Your task to perform on an android device: Open notification settings Image 0: 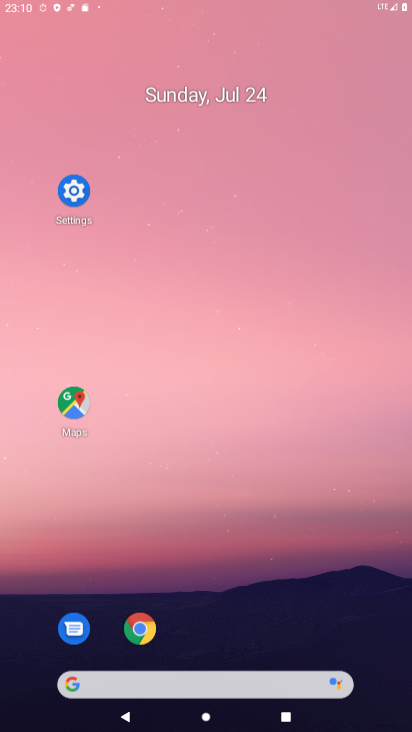
Step 0: drag from (214, 541) to (197, 308)
Your task to perform on an android device: Open notification settings Image 1: 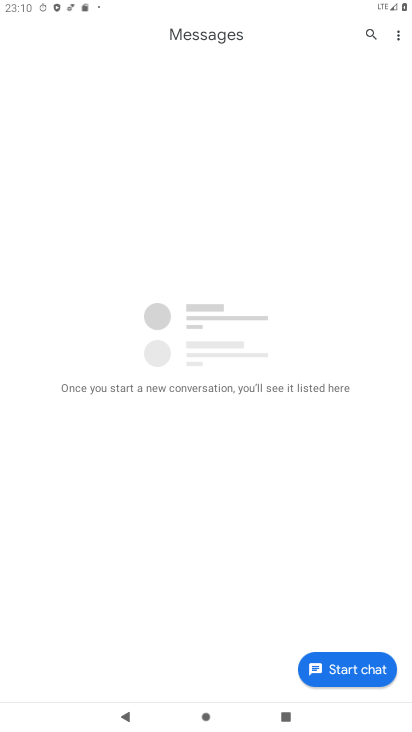
Step 1: press back button
Your task to perform on an android device: Open notification settings Image 2: 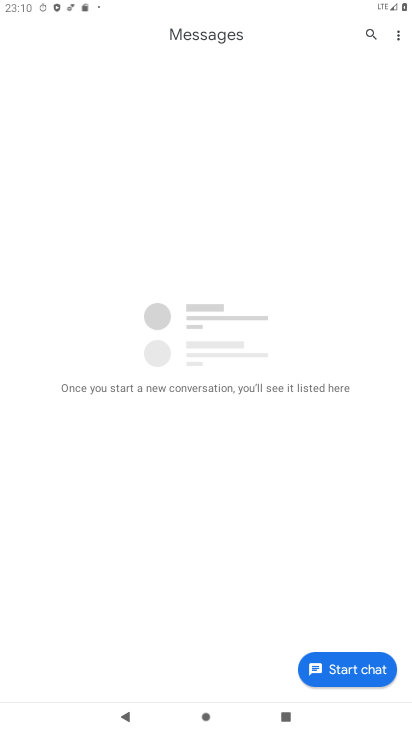
Step 2: press back button
Your task to perform on an android device: Open notification settings Image 3: 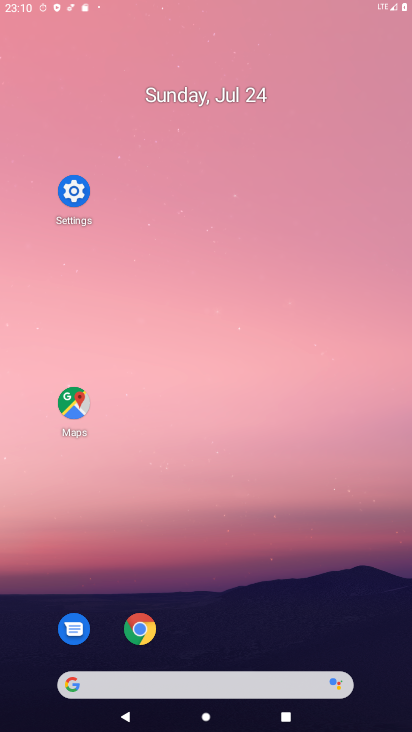
Step 3: press back button
Your task to perform on an android device: Open notification settings Image 4: 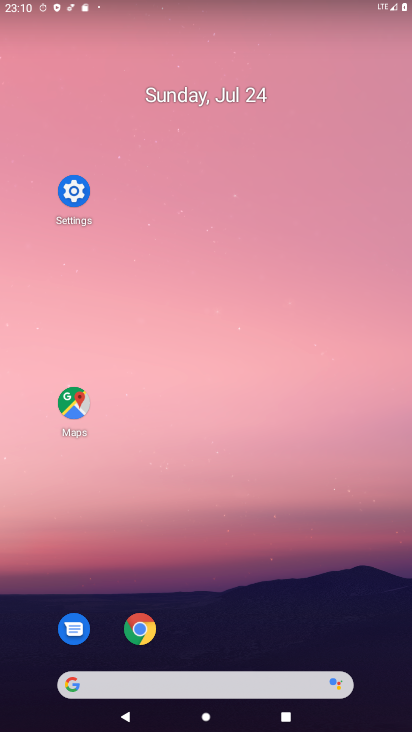
Step 4: drag from (241, 690) to (214, 116)
Your task to perform on an android device: Open notification settings Image 5: 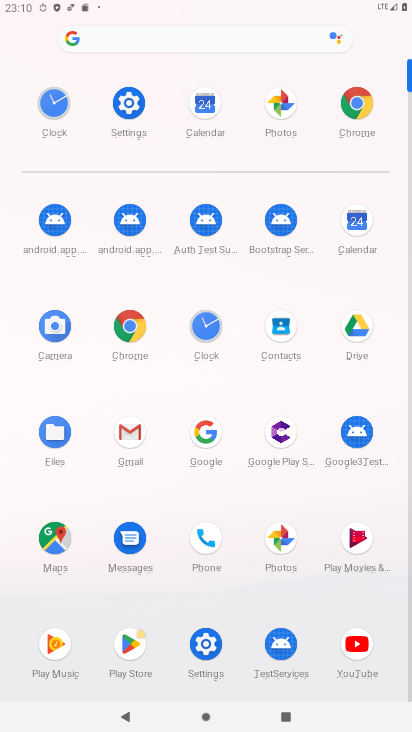
Step 5: click (120, 341)
Your task to perform on an android device: Open notification settings Image 6: 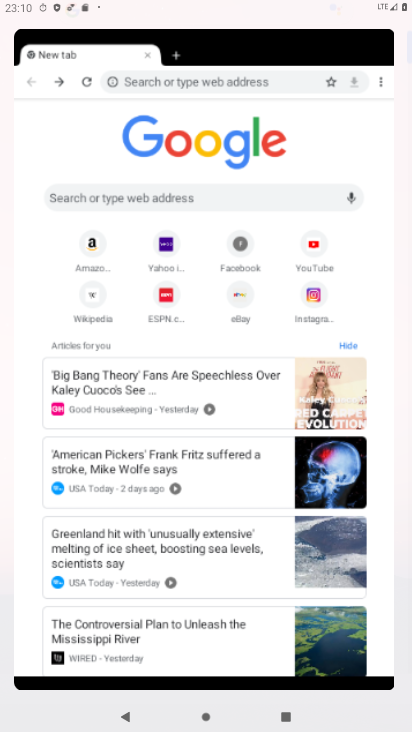
Step 6: click (122, 348)
Your task to perform on an android device: Open notification settings Image 7: 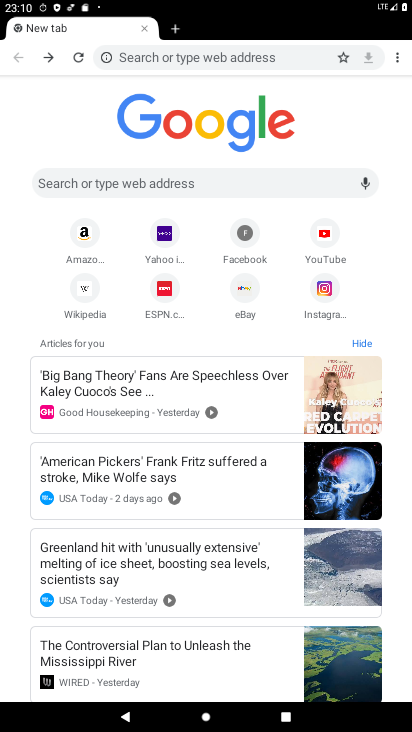
Step 7: drag from (395, 59) to (89, 107)
Your task to perform on an android device: Open notification settings Image 8: 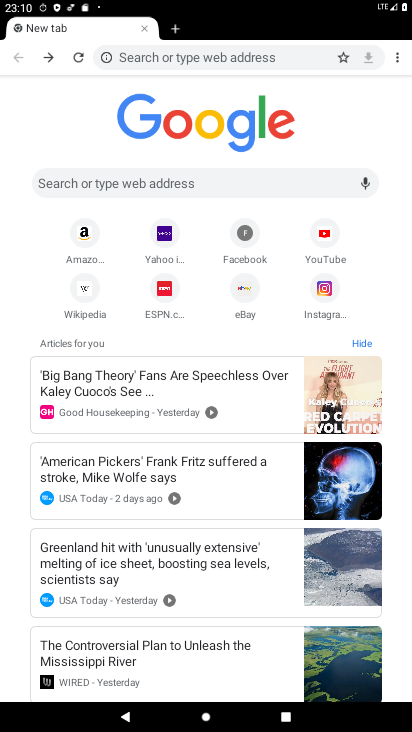
Step 8: click (143, 29)
Your task to perform on an android device: Open notification settings Image 9: 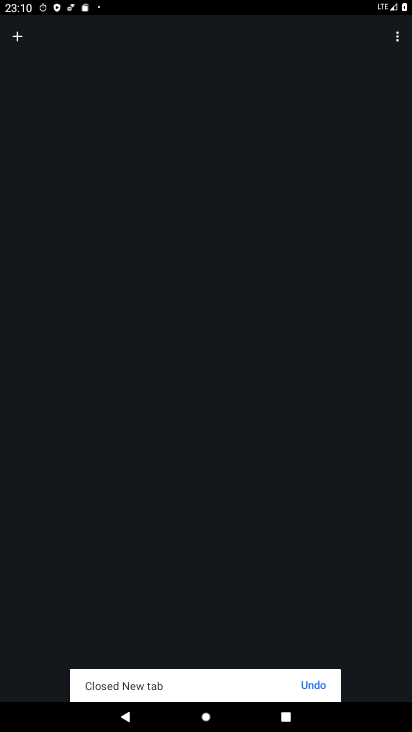
Step 9: click (15, 36)
Your task to perform on an android device: Open notification settings Image 10: 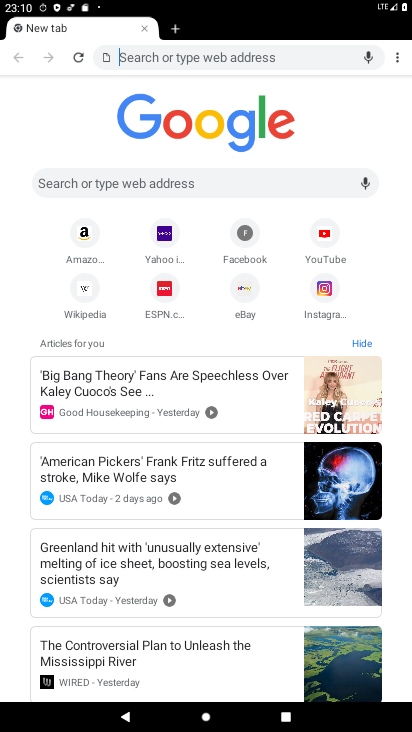
Step 10: press home button
Your task to perform on an android device: Open notification settings Image 11: 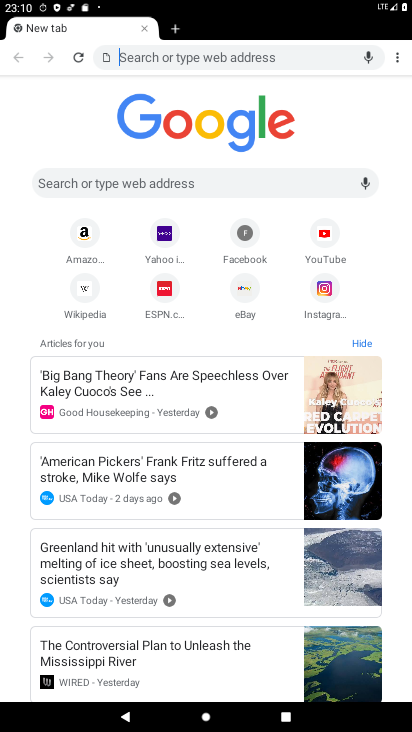
Step 11: press home button
Your task to perform on an android device: Open notification settings Image 12: 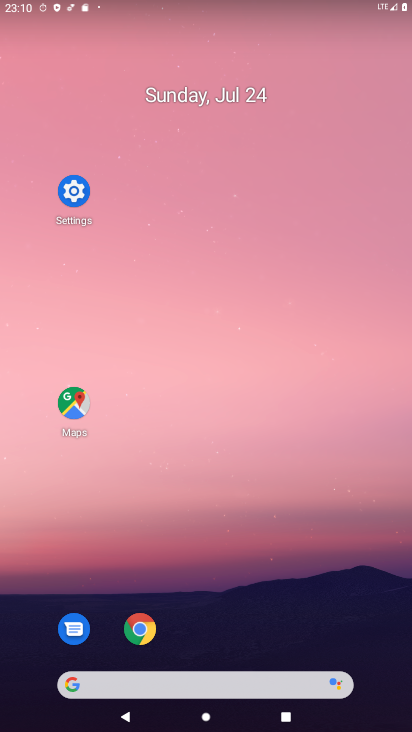
Step 12: drag from (257, 573) to (212, 54)
Your task to perform on an android device: Open notification settings Image 13: 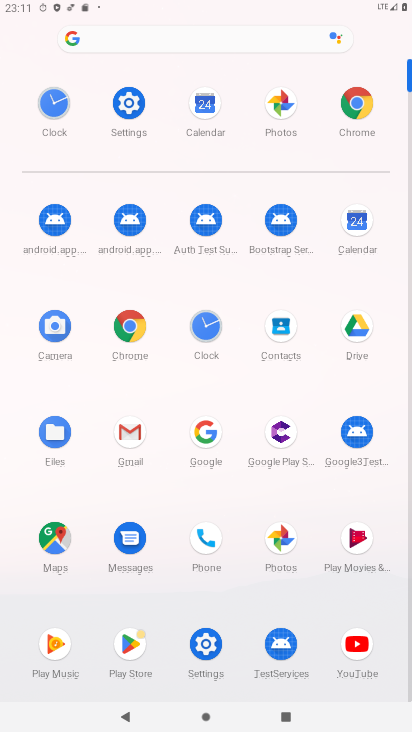
Step 13: click (215, 638)
Your task to perform on an android device: Open notification settings Image 14: 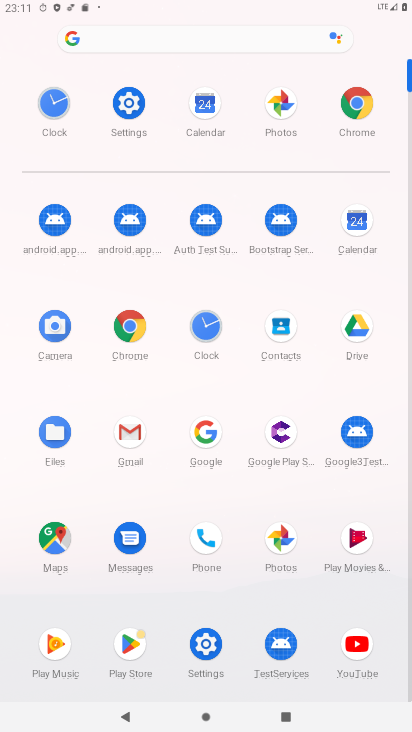
Step 14: click (215, 639)
Your task to perform on an android device: Open notification settings Image 15: 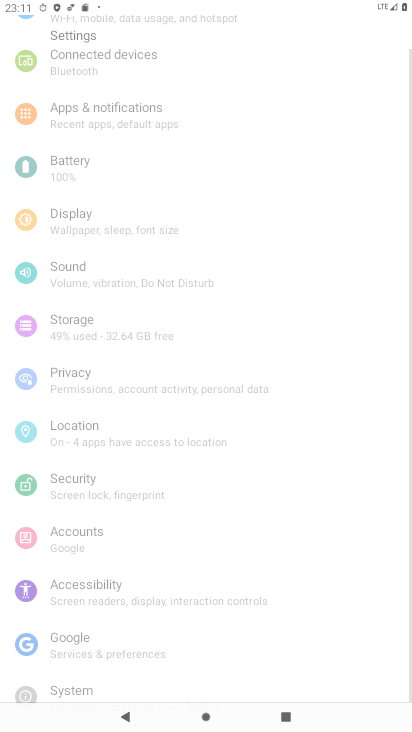
Step 15: click (210, 639)
Your task to perform on an android device: Open notification settings Image 16: 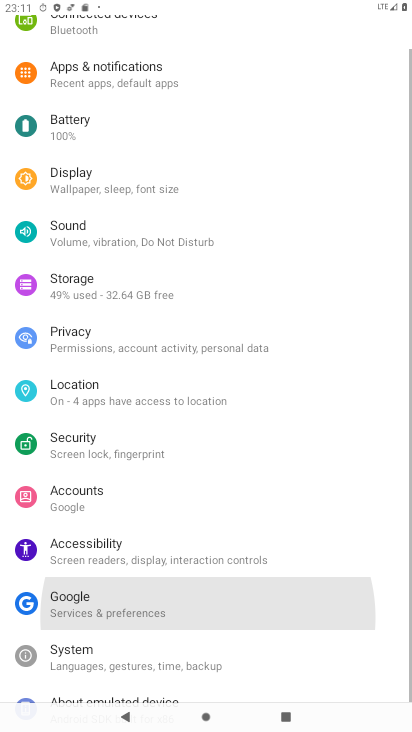
Step 16: click (212, 625)
Your task to perform on an android device: Open notification settings Image 17: 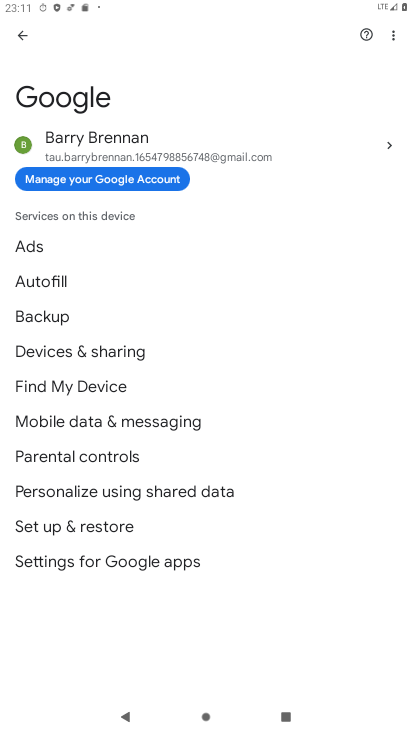
Step 17: click (15, 35)
Your task to perform on an android device: Open notification settings Image 18: 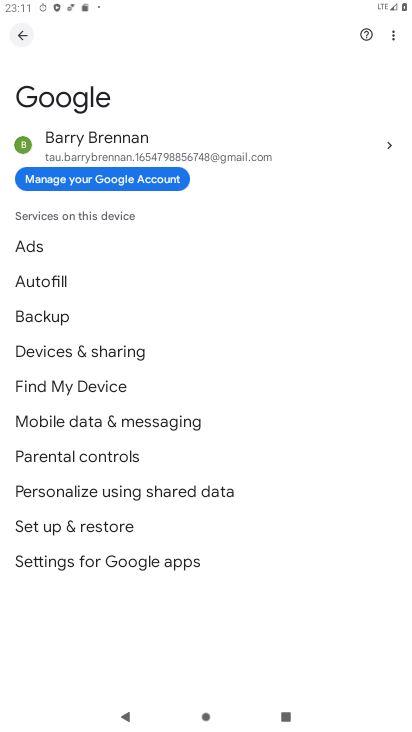
Step 18: click (15, 35)
Your task to perform on an android device: Open notification settings Image 19: 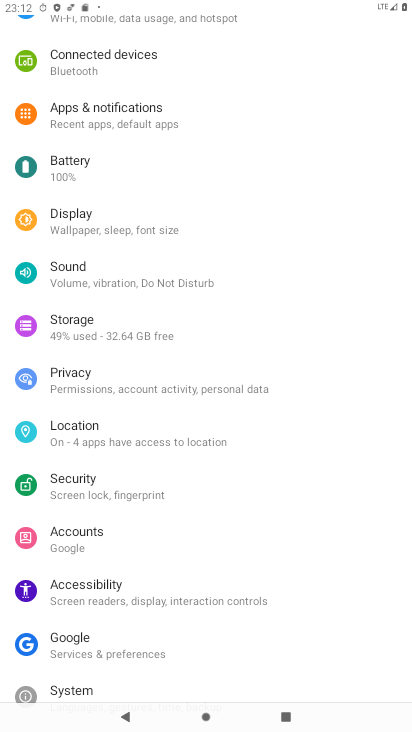
Step 19: drag from (112, 449) to (136, 212)
Your task to perform on an android device: Open notification settings Image 20: 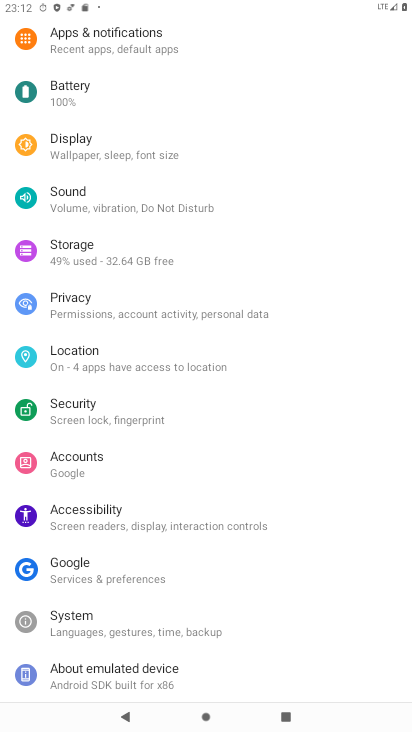
Step 20: click (111, 46)
Your task to perform on an android device: Open notification settings Image 21: 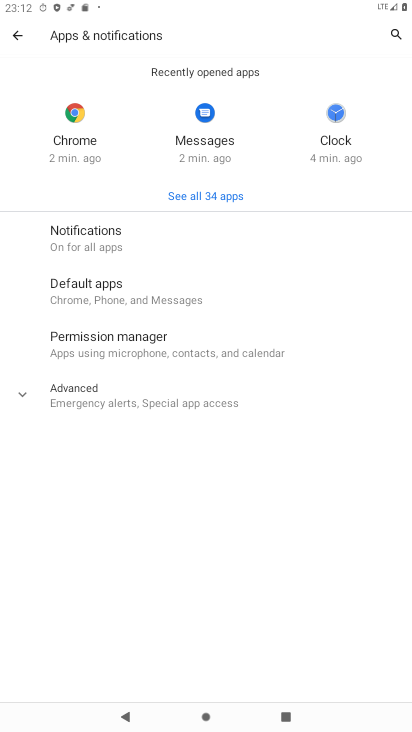
Step 21: click (94, 245)
Your task to perform on an android device: Open notification settings Image 22: 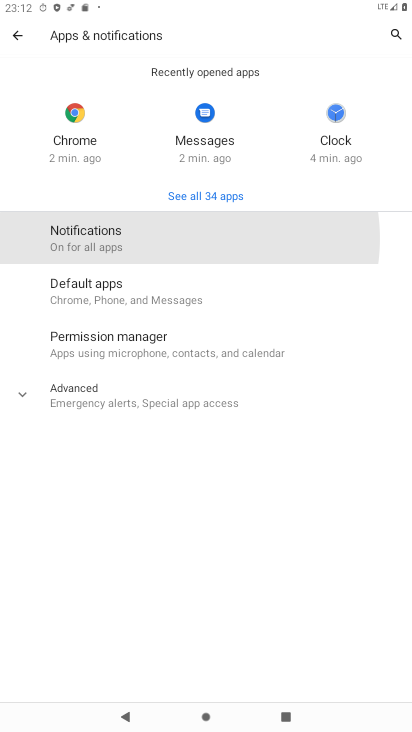
Step 22: click (99, 237)
Your task to perform on an android device: Open notification settings Image 23: 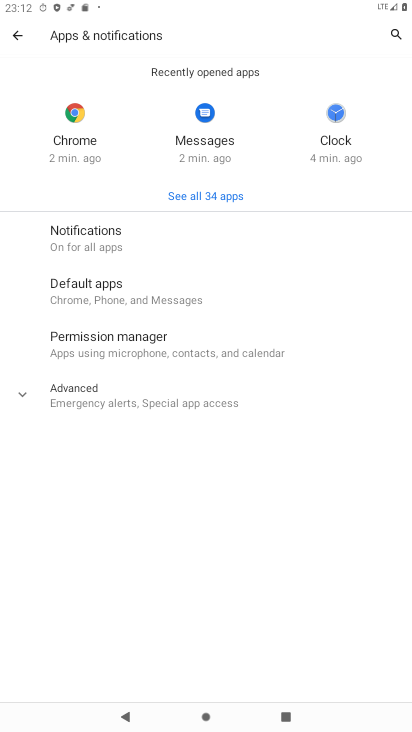
Step 23: click (115, 226)
Your task to perform on an android device: Open notification settings Image 24: 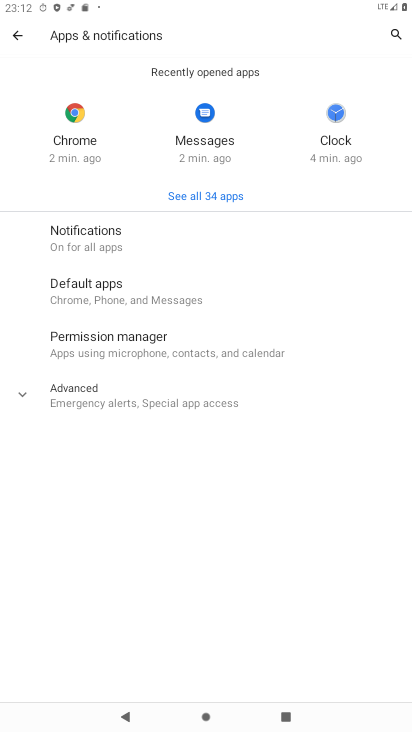
Step 24: click (115, 226)
Your task to perform on an android device: Open notification settings Image 25: 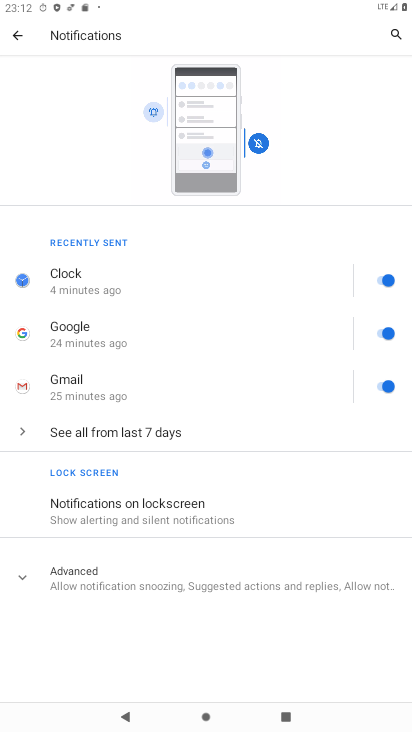
Step 25: task complete